Your task to perform on an android device: see tabs open on other devices in the chrome app Image 0: 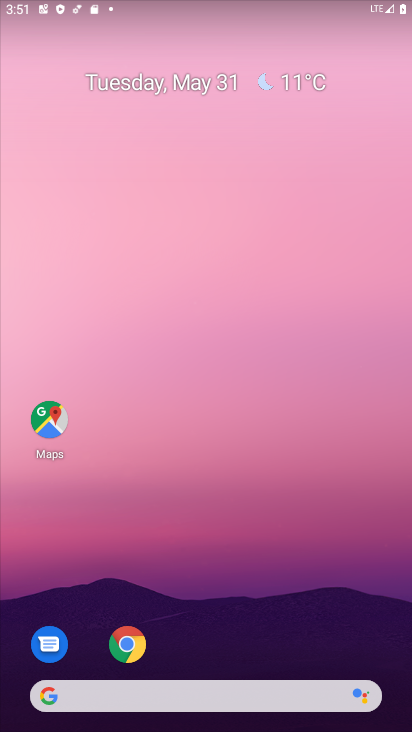
Step 0: click (130, 640)
Your task to perform on an android device: see tabs open on other devices in the chrome app Image 1: 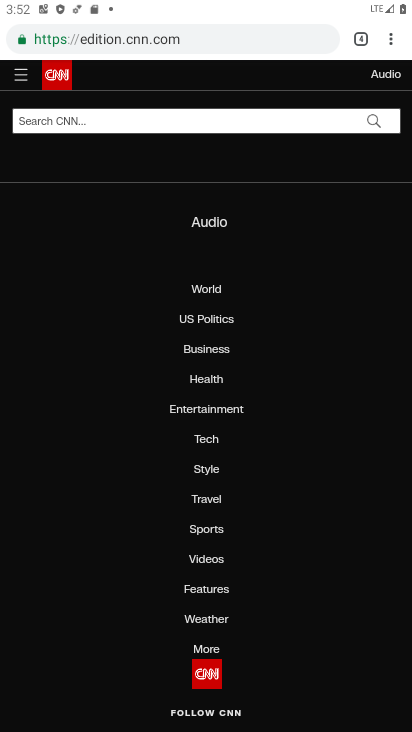
Step 1: click (400, 37)
Your task to perform on an android device: see tabs open on other devices in the chrome app Image 2: 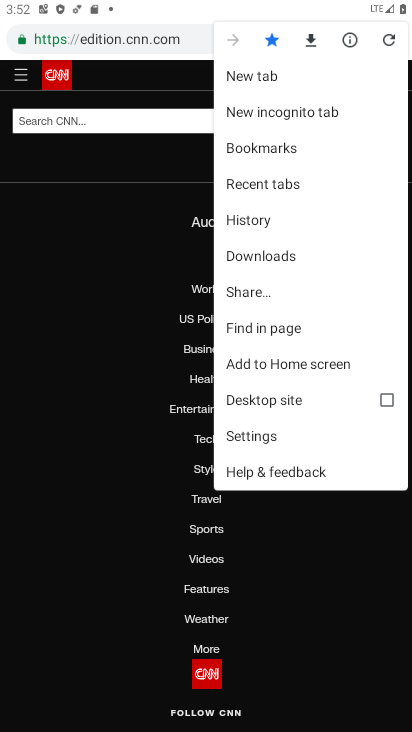
Step 2: click (268, 185)
Your task to perform on an android device: see tabs open on other devices in the chrome app Image 3: 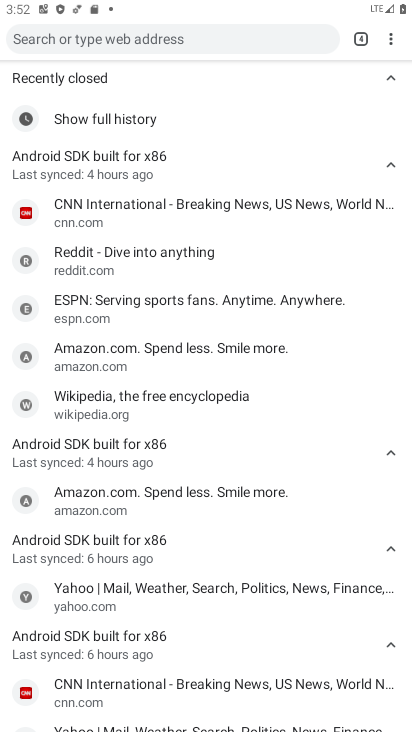
Step 3: task complete